Your task to perform on an android device: change the clock style Image 0: 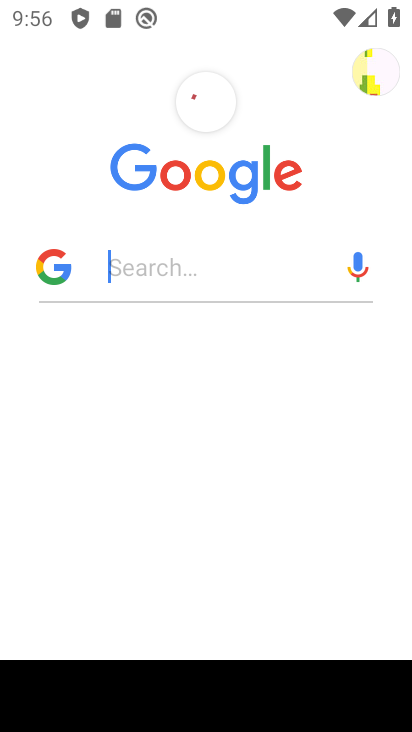
Step 0: press home button
Your task to perform on an android device: change the clock style Image 1: 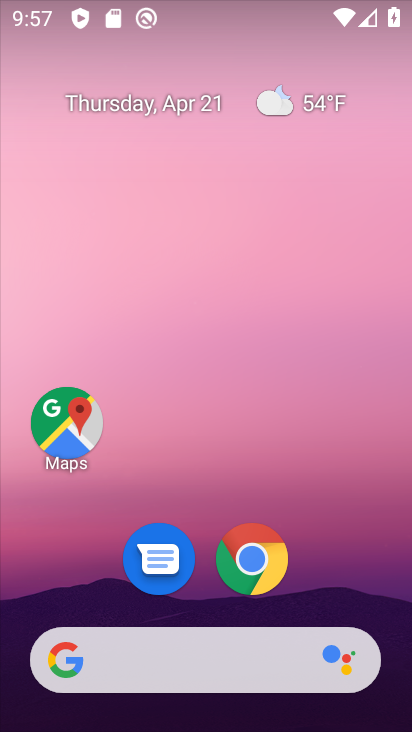
Step 1: drag from (200, 487) to (297, 87)
Your task to perform on an android device: change the clock style Image 2: 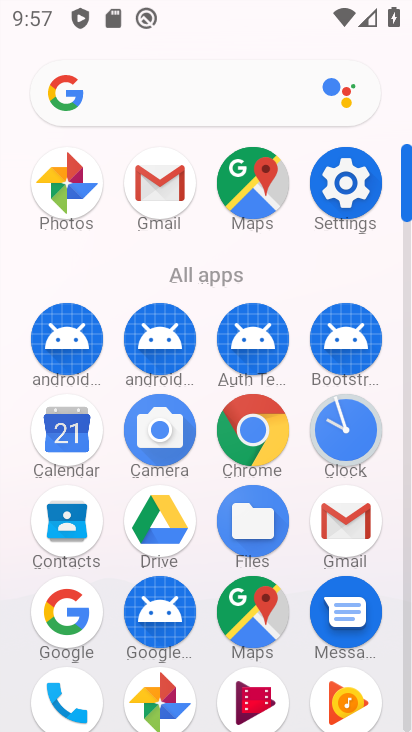
Step 2: click (361, 422)
Your task to perform on an android device: change the clock style Image 3: 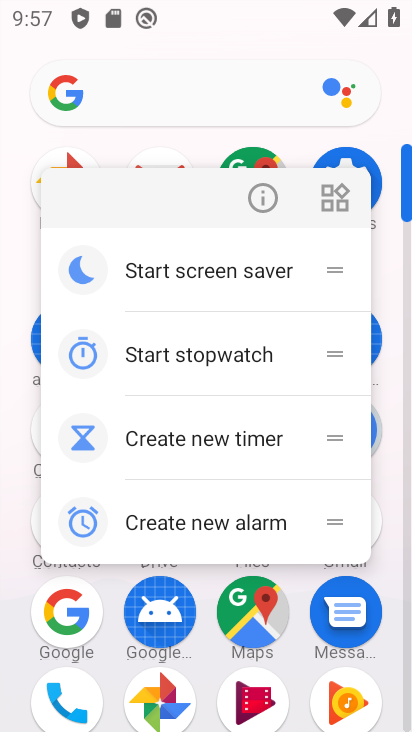
Step 3: click (381, 440)
Your task to perform on an android device: change the clock style Image 4: 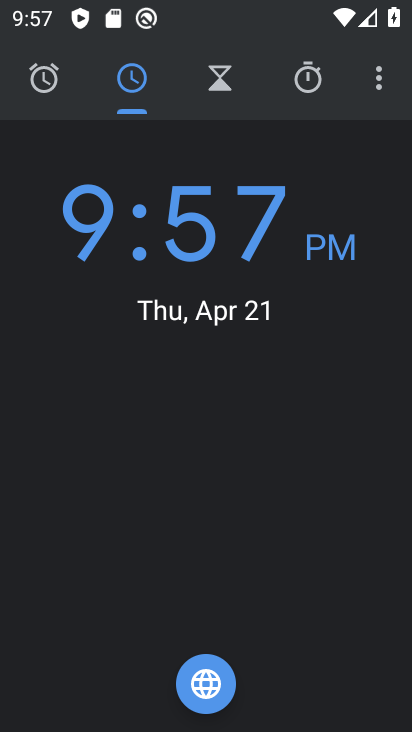
Step 4: click (381, 75)
Your task to perform on an android device: change the clock style Image 5: 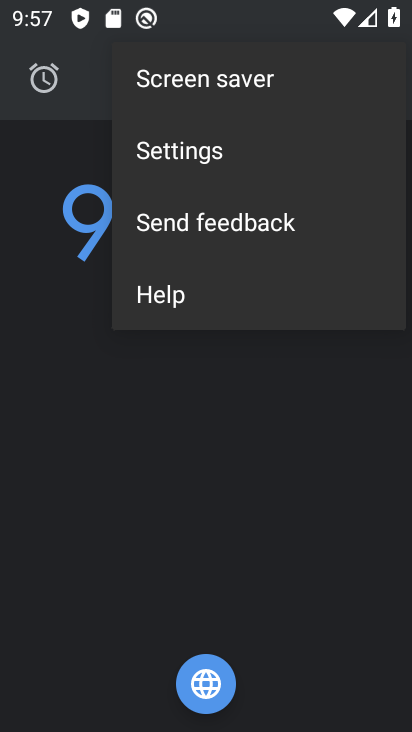
Step 5: click (208, 156)
Your task to perform on an android device: change the clock style Image 6: 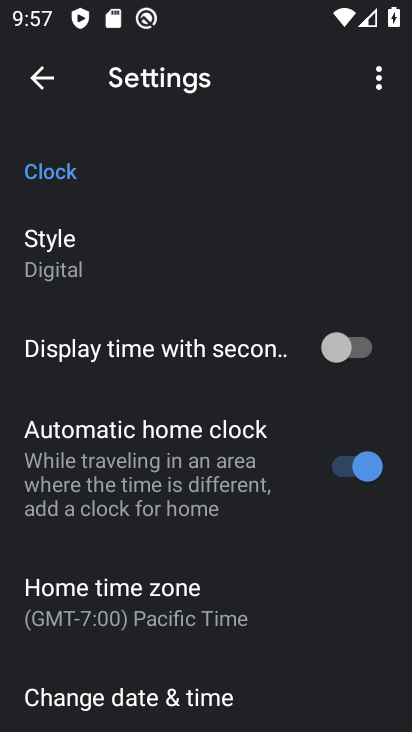
Step 6: click (70, 263)
Your task to perform on an android device: change the clock style Image 7: 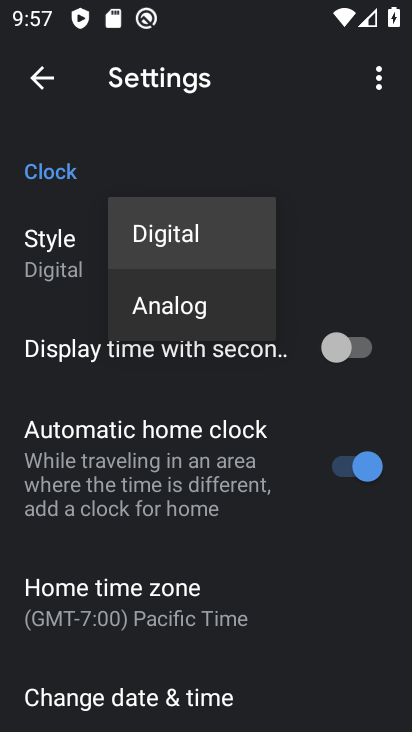
Step 7: click (161, 303)
Your task to perform on an android device: change the clock style Image 8: 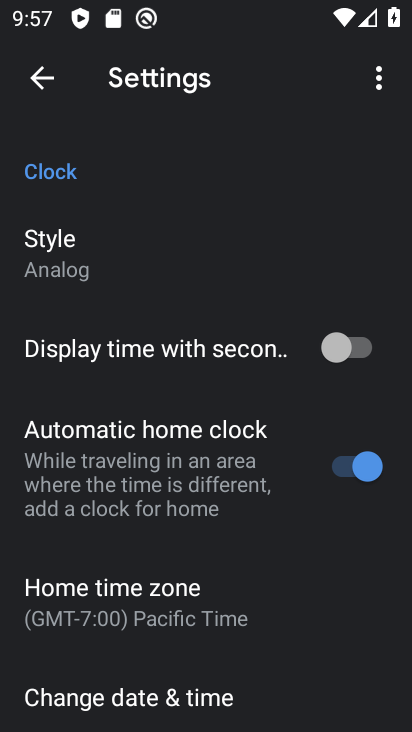
Step 8: task complete